Your task to perform on an android device: add a contact Image 0: 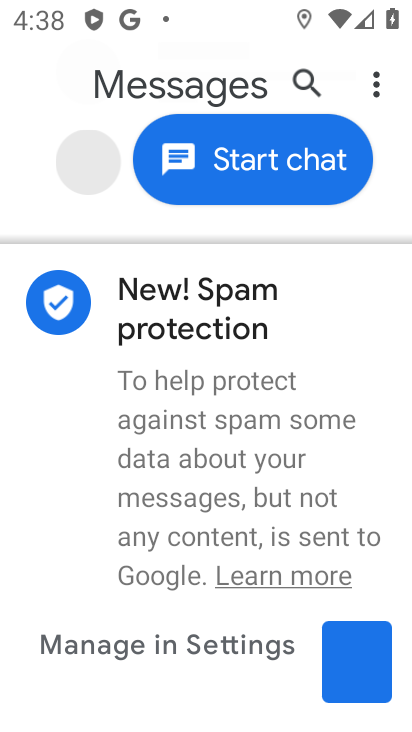
Step 0: press home button
Your task to perform on an android device: add a contact Image 1: 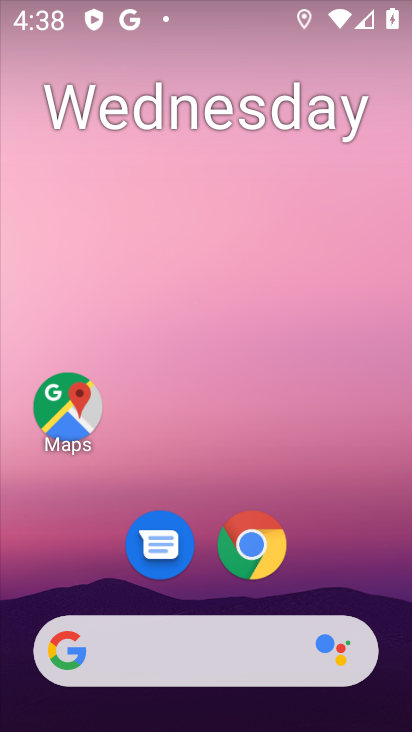
Step 1: drag from (208, 614) to (153, 144)
Your task to perform on an android device: add a contact Image 2: 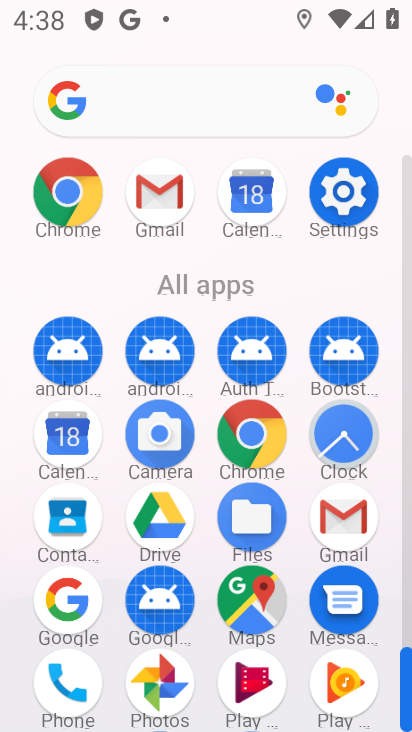
Step 2: click (61, 685)
Your task to perform on an android device: add a contact Image 3: 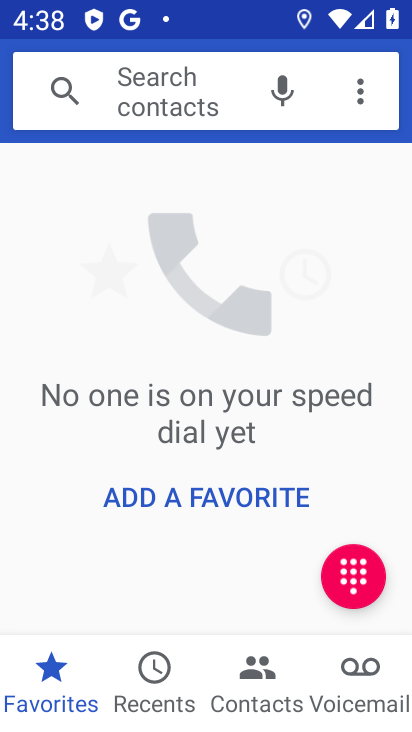
Step 3: click (255, 690)
Your task to perform on an android device: add a contact Image 4: 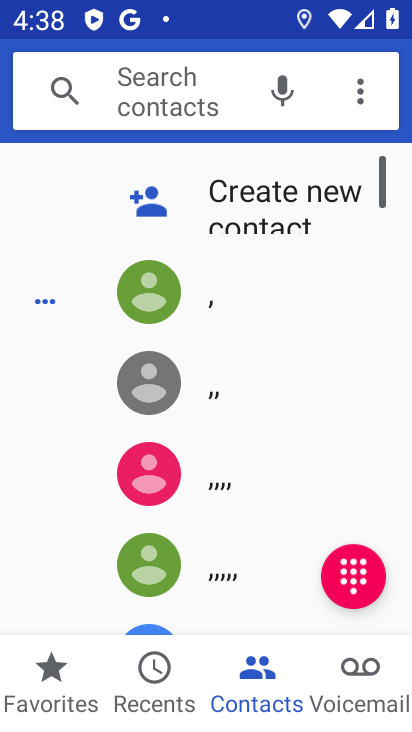
Step 4: click (243, 222)
Your task to perform on an android device: add a contact Image 5: 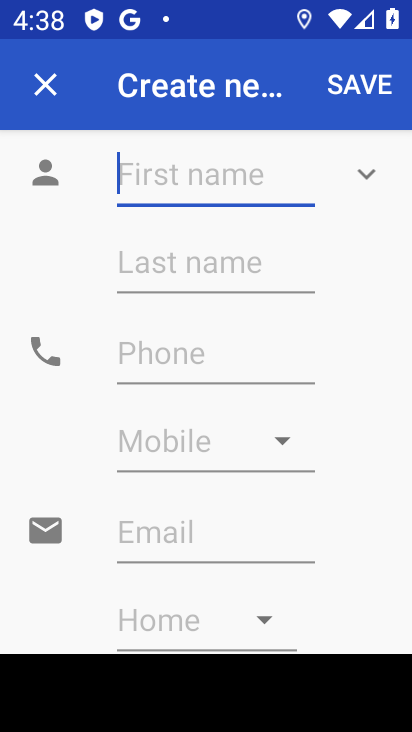
Step 5: type "gb"
Your task to perform on an android device: add a contact Image 6: 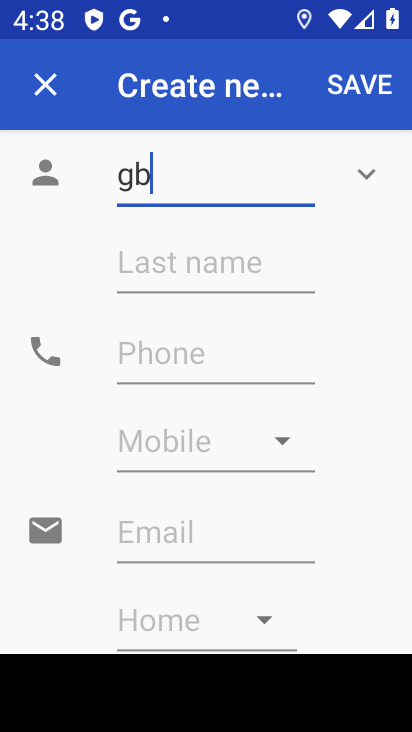
Step 6: type ""
Your task to perform on an android device: add a contact Image 7: 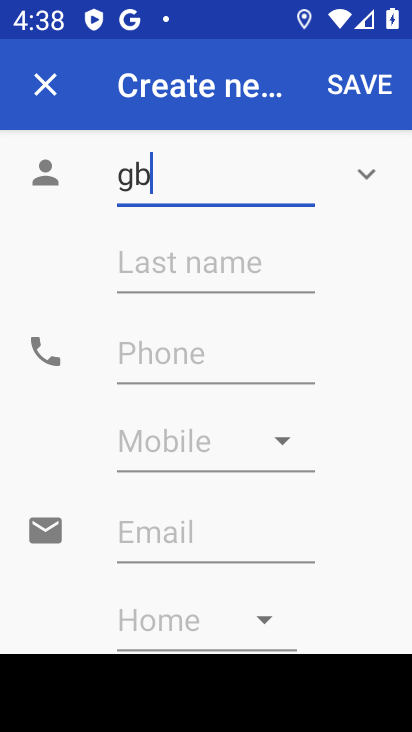
Step 7: click (233, 377)
Your task to perform on an android device: add a contact Image 8: 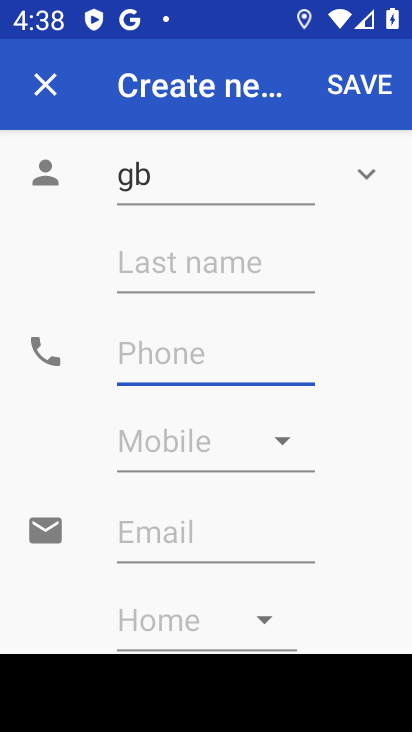
Step 8: type "43"
Your task to perform on an android device: add a contact Image 9: 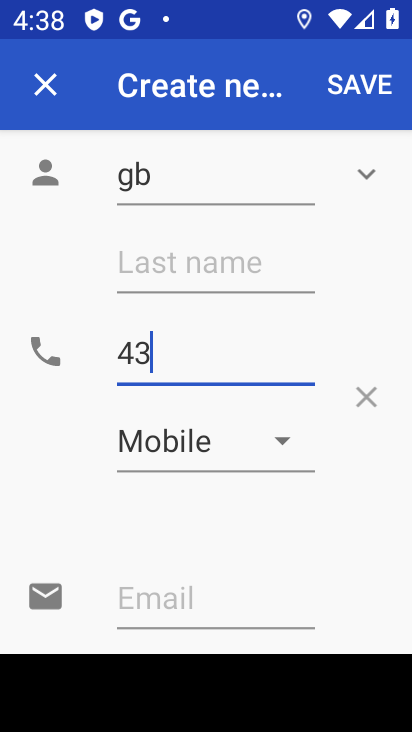
Step 9: type ""
Your task to perform on an android device: add a contact Image 10: 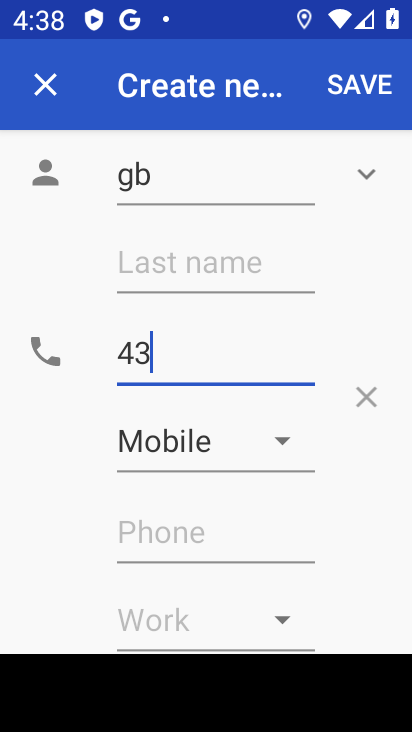
Step 10: click (385, 93)
Your task to perform on an android device: add a contact Image 11: 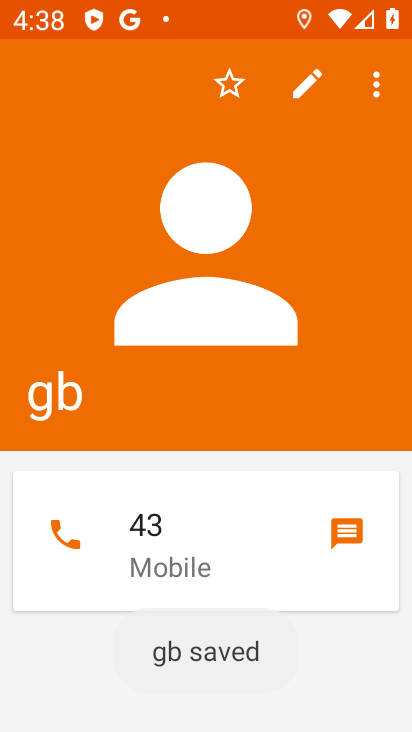
Step 11: task complete